Your task to perform on an android device: check data usage Image 0: 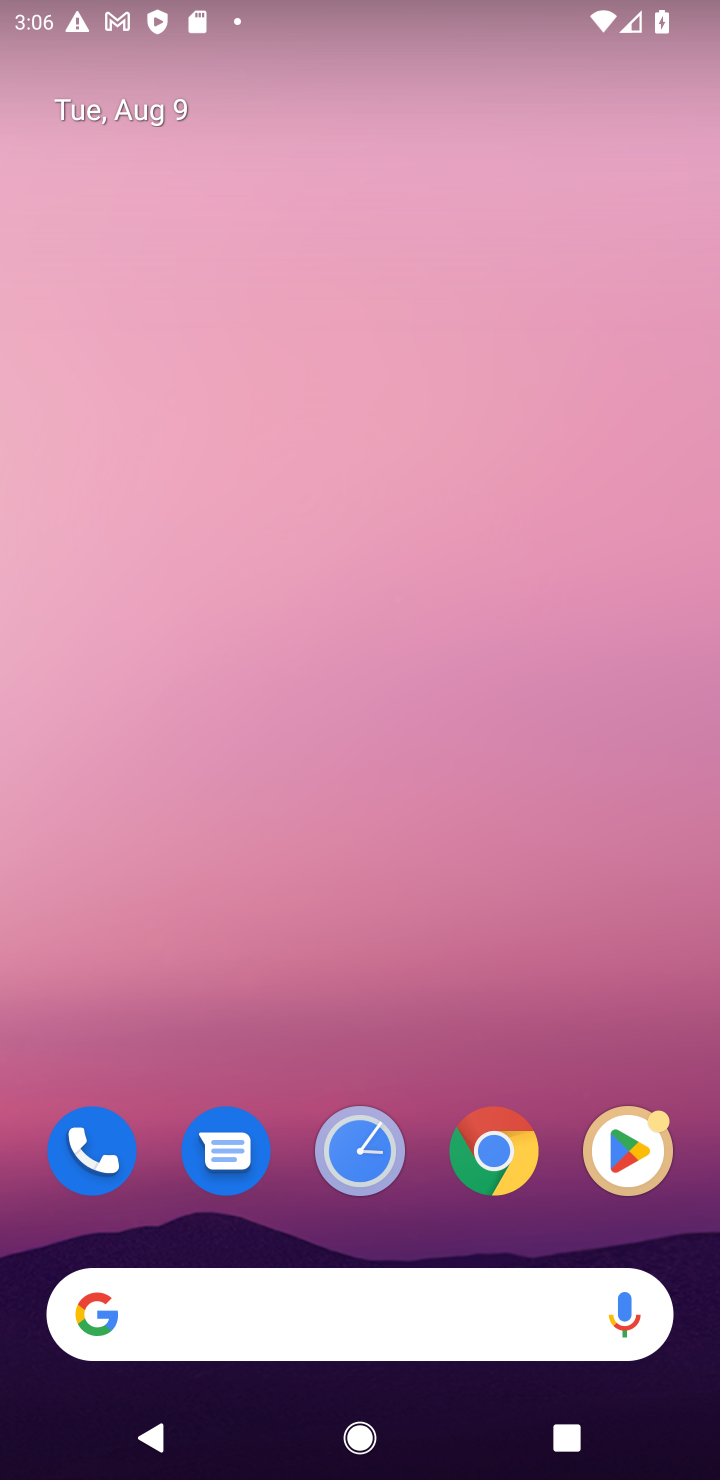
Step 0: drag from (453, 957) to (427, 247)
Your task to perform on an android device: check data usage Image 1: 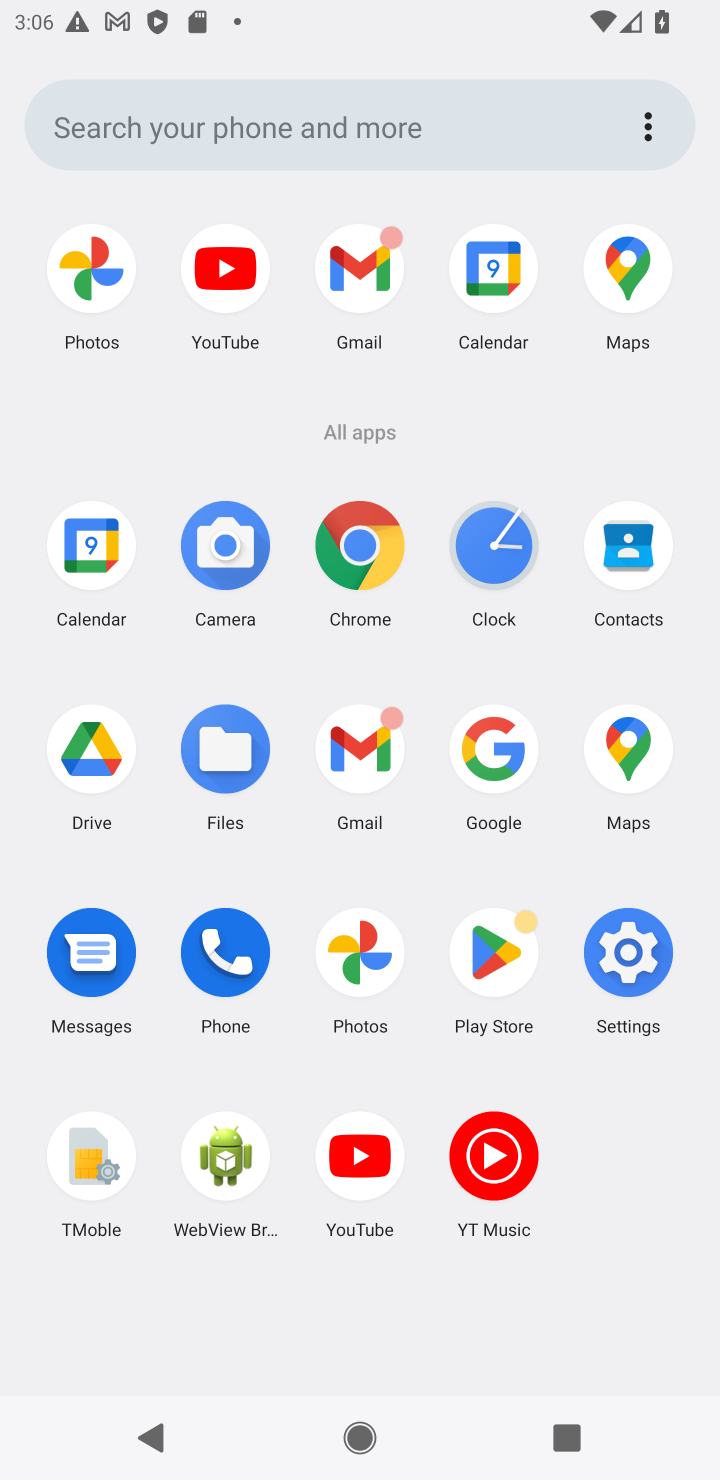
Step 1: click (625, 953)
Your task to perform on an android device: check data usage Image 2: 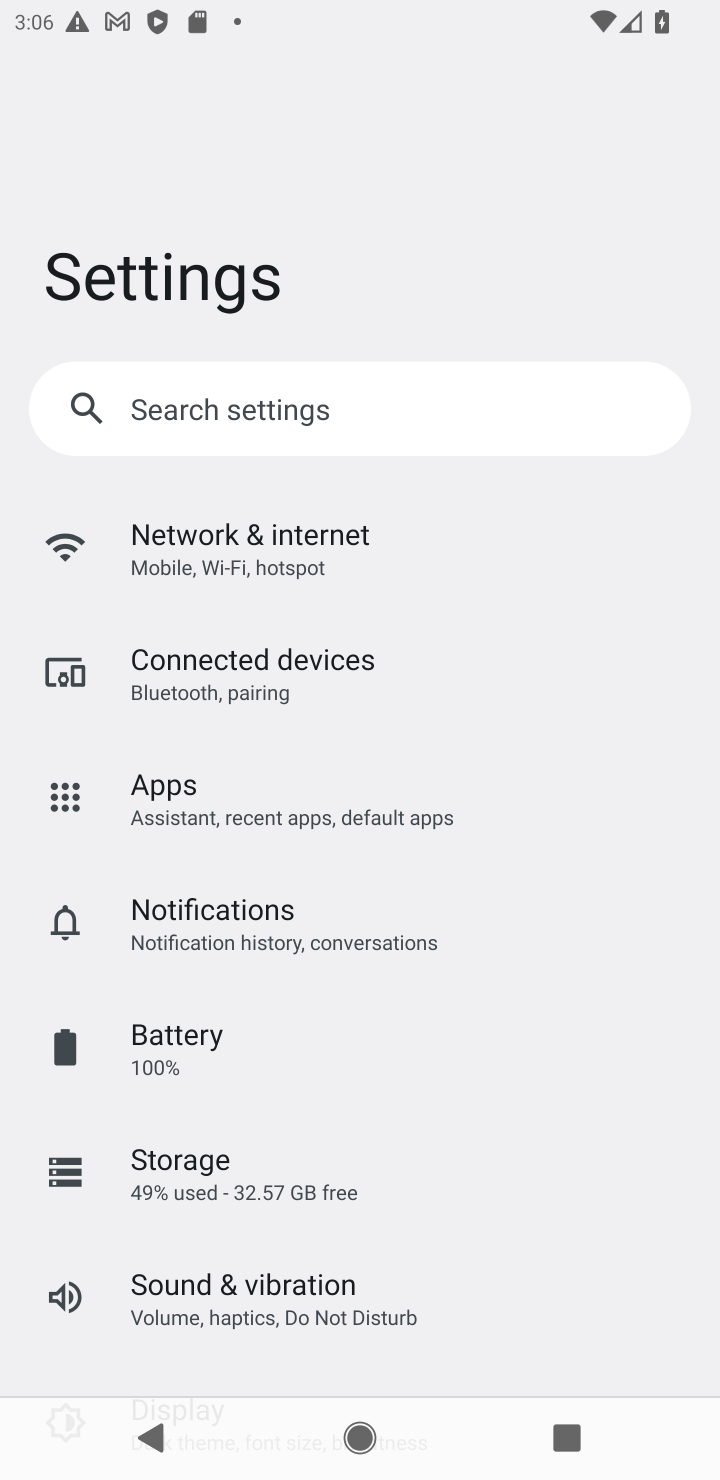
Step 2: click (235, 551)
Your task to perform on an android device: check data usage Image 3: 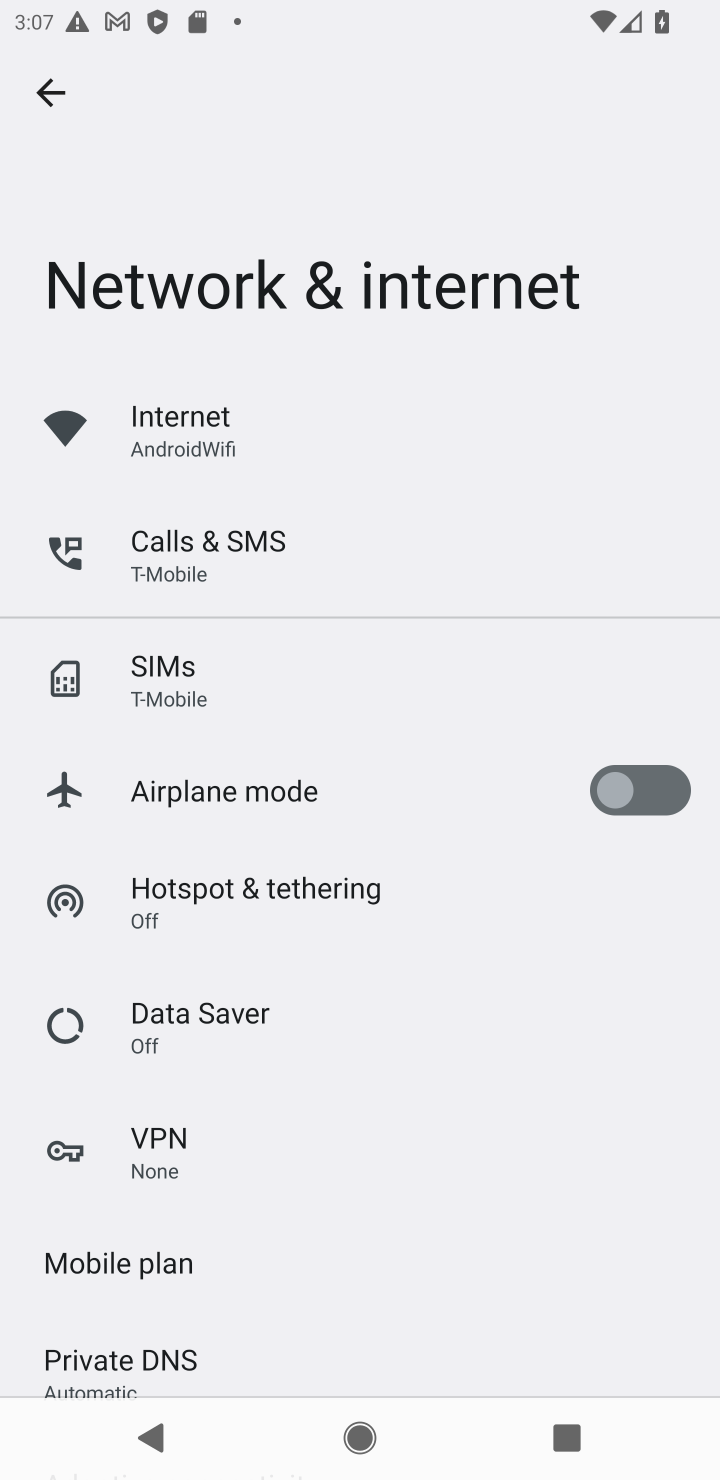
Step 3: click (184, 444)
Your task to perform on an android device: check data usage Image 4: 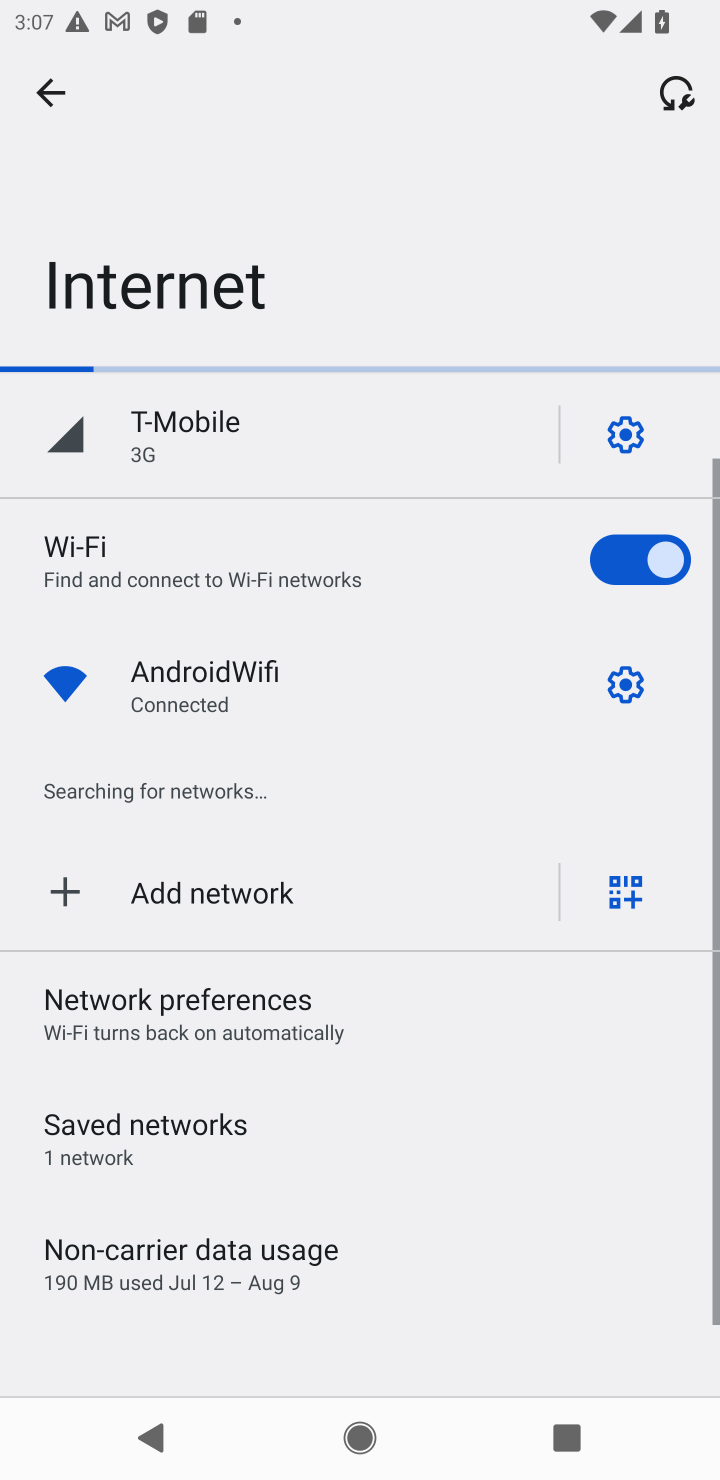
Step 4: click (165, 1258)
Your task to perform on an android device: check data usage Image 5: 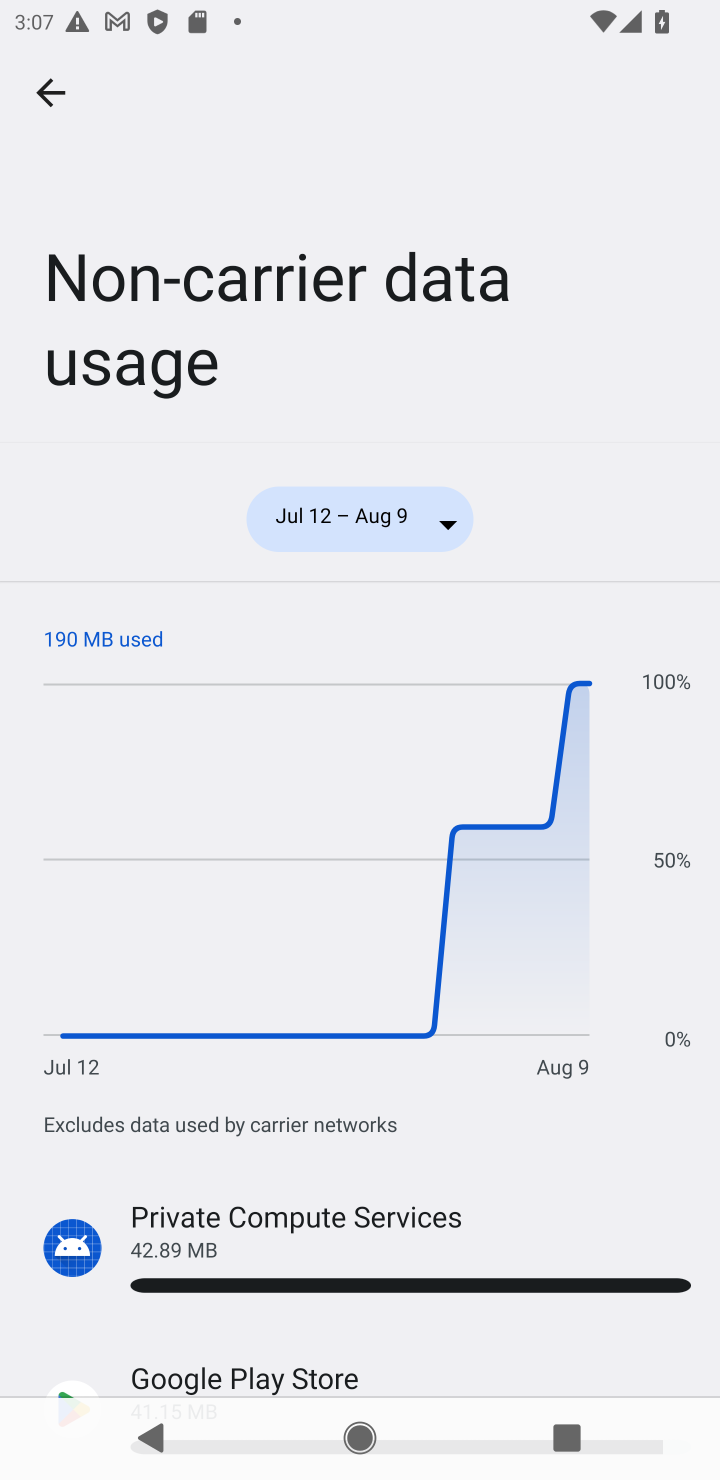
Step 5: task complete